Your task to perform on an android device: Open the Play Movies app and select the watchlist tab. Image 0: 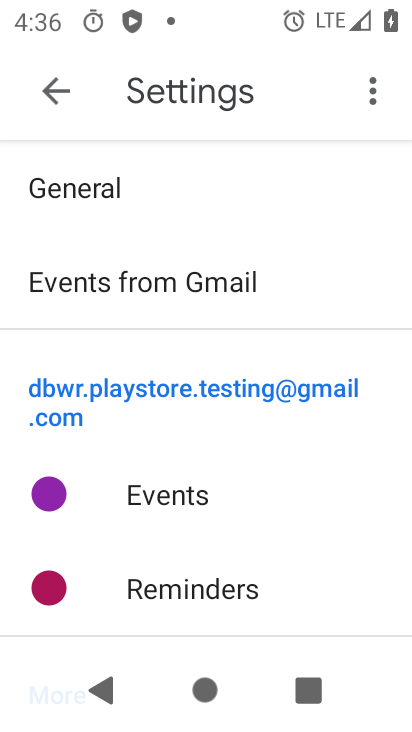
Step 0: press home button
Your task to perform on an android device: Open the Play Movies app and select the watchlist tab. Image 1: 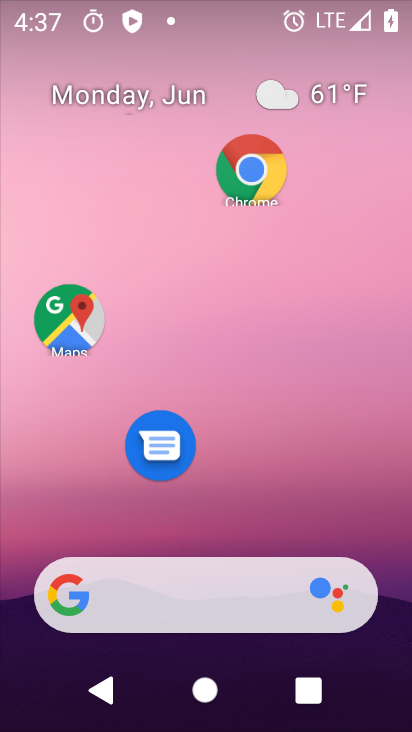
Step 1: drag from (237, 527) to (158, 2)
Your task to perform on an android device: Open the Play Movies app and select the watchlist tab. Image 2: 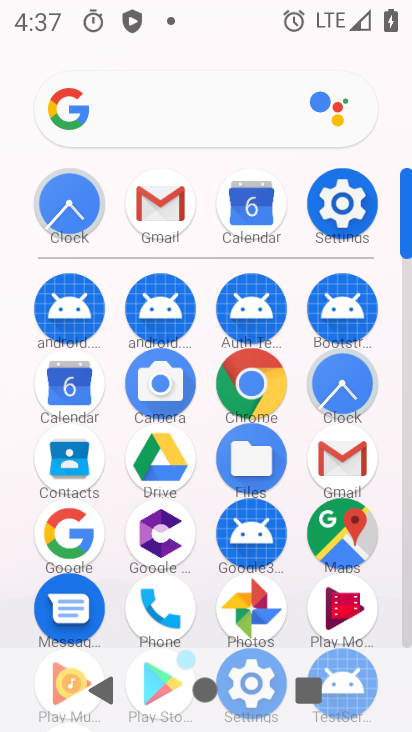
Step 2: drag from (241, 484) to (240, 186)
Your task to perform on an android device: Open the Play Movies app and select the watchlist tab. Image 3: 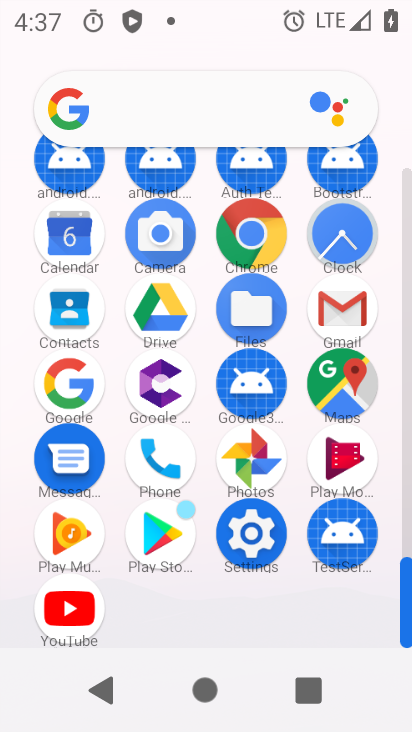
Step 3: click (351, 464)
Your task to perform on an android device: Open the Play Movies app and select the watchlist tab. Image 4: 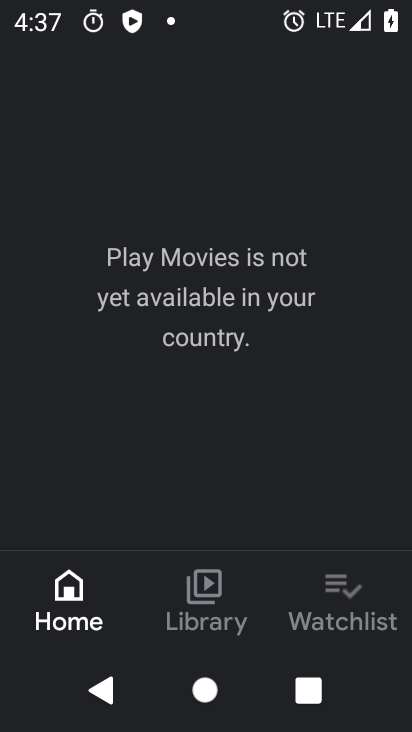
Step 4: click (342, 628)
Your task to perform on an android device: Open the Play Movies app and select the watchlist tab. Image 5: 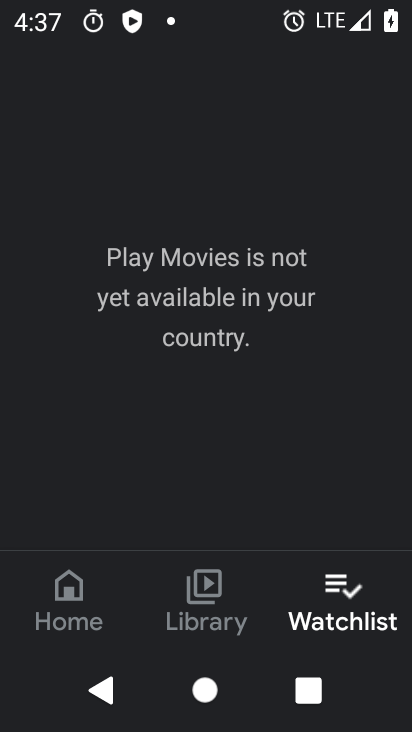
Step 5: task complete